Your task to perform on an android device: turn on sleep mode Image 0: 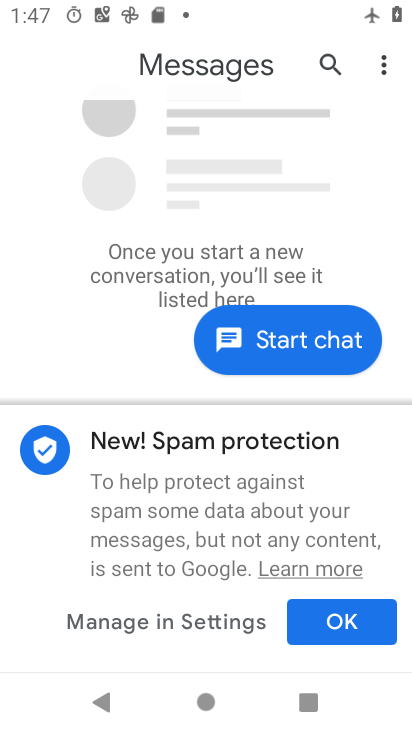
Step 0: press home button
Your task to perform on an android device: turn on sleep mode Image 1: 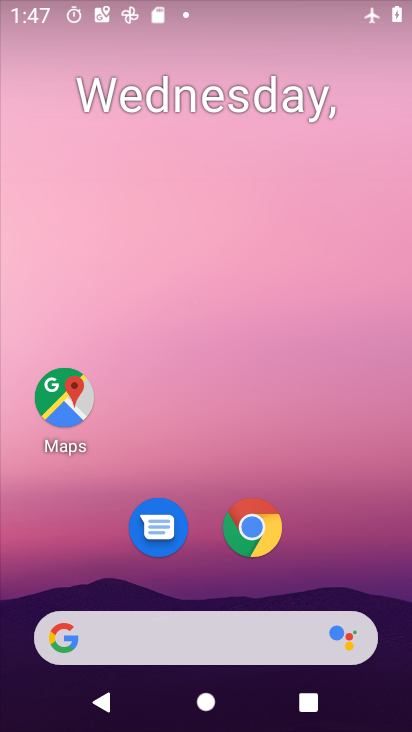
Step 1: drag from (203, 613) to (409, 518)
Your task to perform on an android device: turn on sleep mode Image 2: 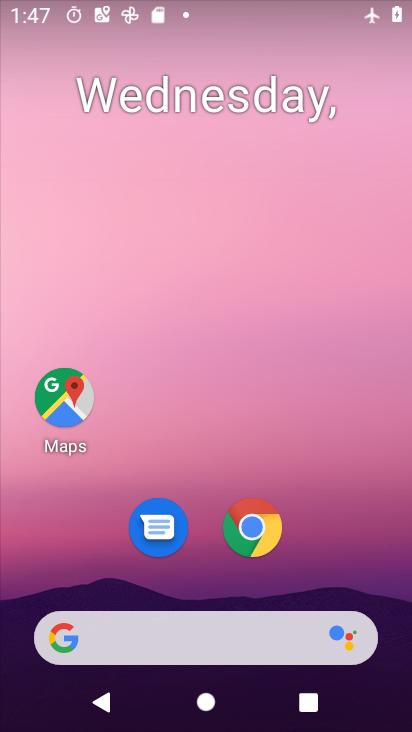
Step 2: drag from (316, 577) to (358, 25)
Your task to perform on an android device: turn on sleep mode Image 3: 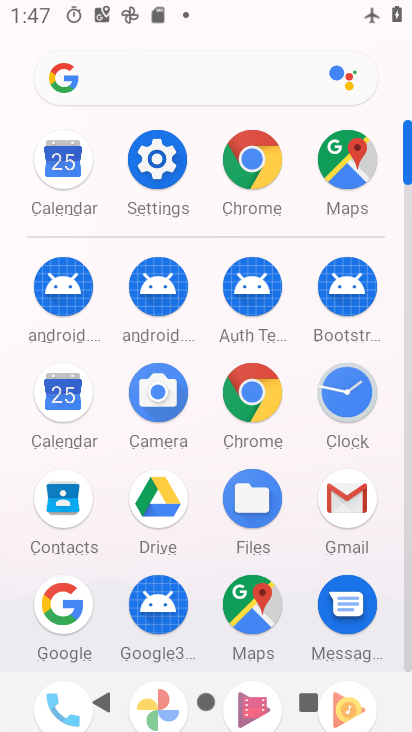
Step 3: click (148, 171)
Your task to perform on an android device: turn on sleep mode Image 4: 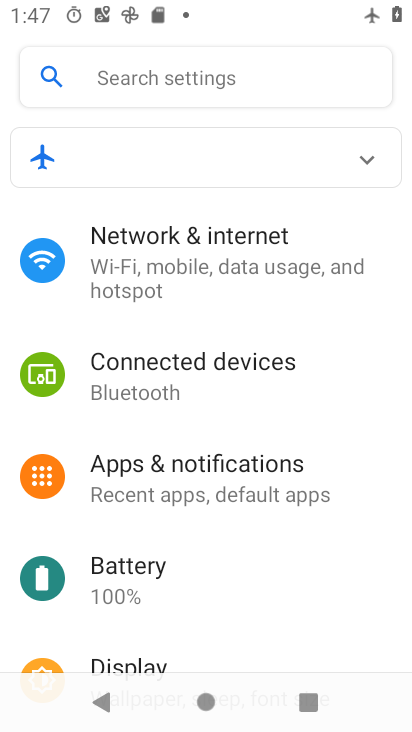
Step 4: drag from (245, 624) to (272, 283)
Your task to perform on an android device: turn on sleep mode Image 5: 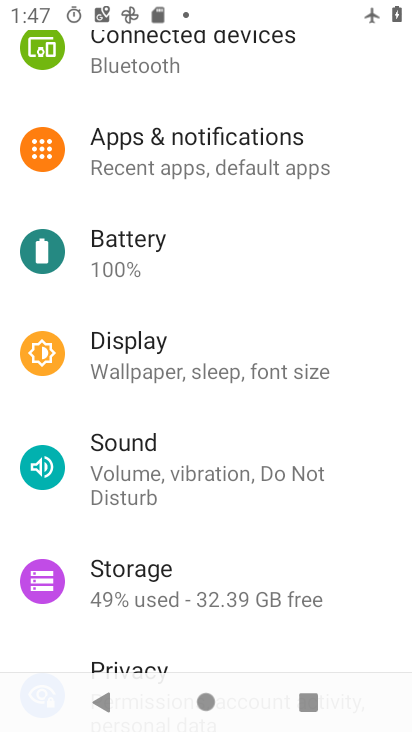
Step 5: click (181, 482)
Your task to perform on an android device: turn on sleep mode Image 6: 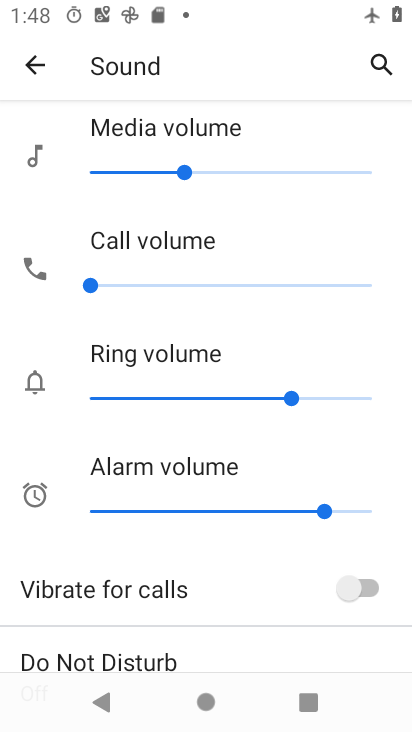
Step 6: task complete